Your task to perform on an android device: Go to internet settings Image 0: 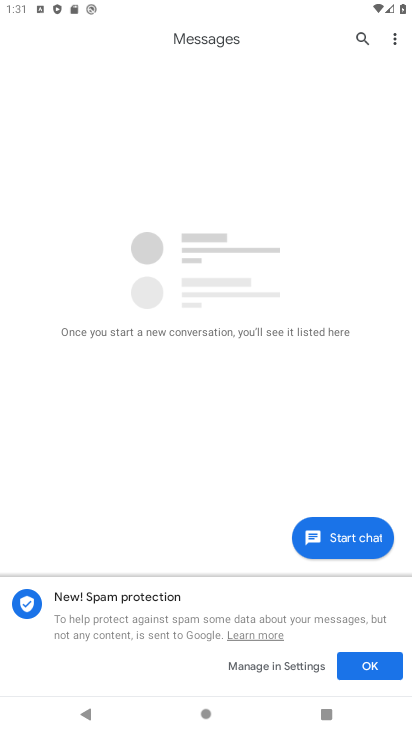
Step 0: press home button
Your task to perform on an android device: Go to internet settings Image 1: 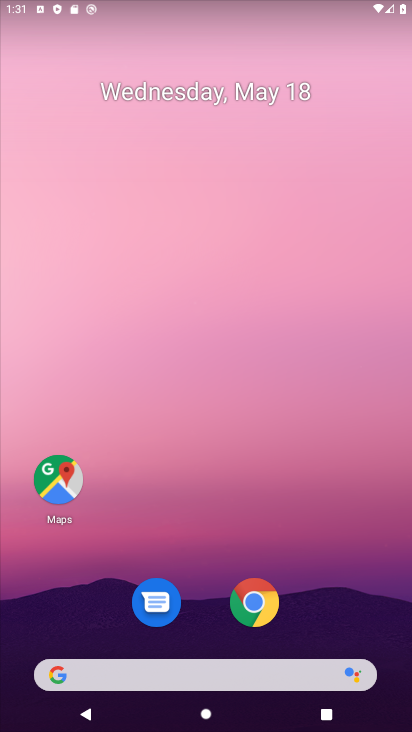
Step 1: drag from (274, 657) to (270, 329)
Your task to perform on an android device: Go to internet settings Image 2: 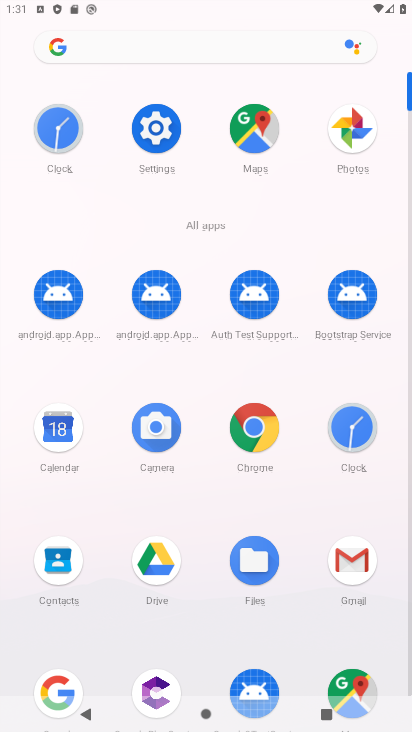
Step 2: click (149, 130)
Your task to perform on an android device: Go to internet settings Image 3: 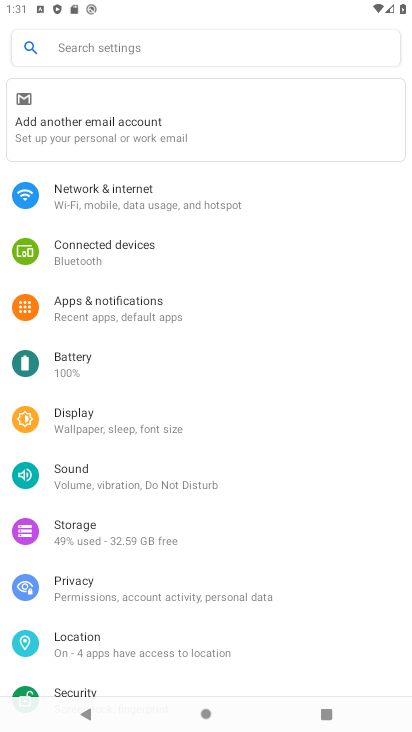
Step 3: click (185, 199)
Your task to perform on an android device: Go to internet settings Image 4: 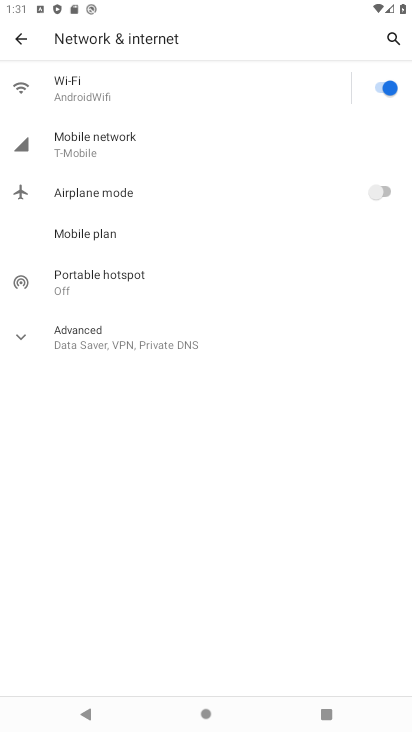
Step 4: task complete